Your task to perform on an android device: Go to location settings Image 0: 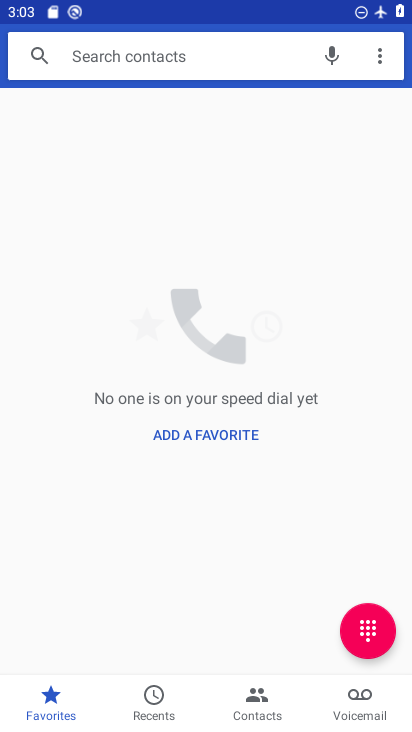
Step 0: drag from (250, 456) to (243, 185)
Your task to perform on an android device: Go to location settings Image 1: 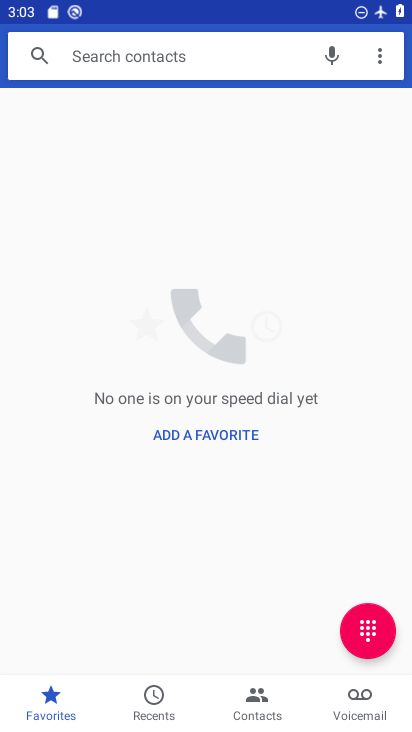
Step 1: press home button
Your task to perform on an android device: Go to location settings Image 2: 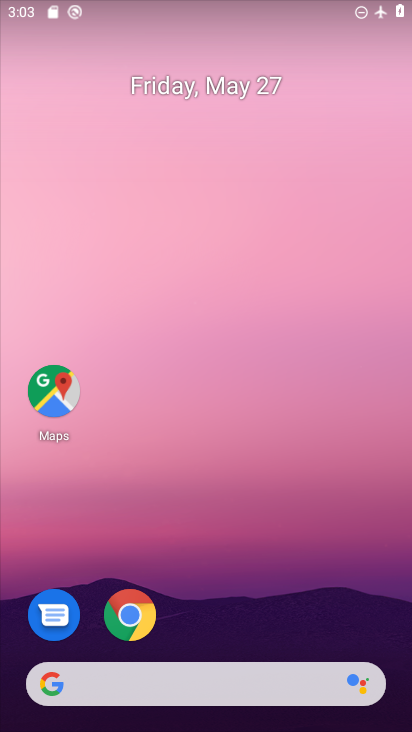
Step 2: drag from (291, 537) to (261, 307)
Your task to perform on an android device: Go to location settings Image 3: 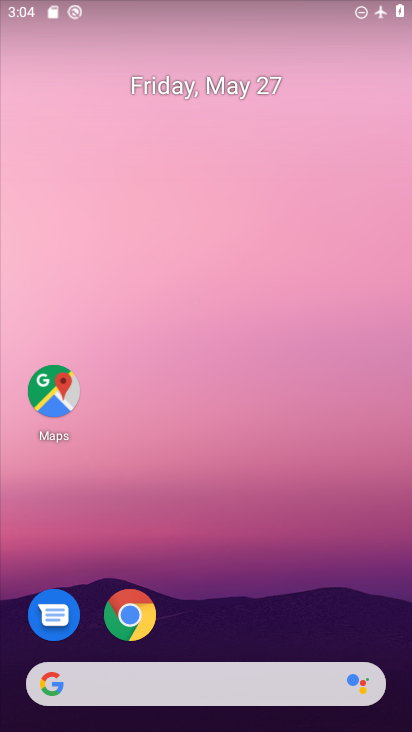
Step 3: drag from (271, 619) to (174, 59)
Your task to perform on an android device: Go to location settings Image 4: 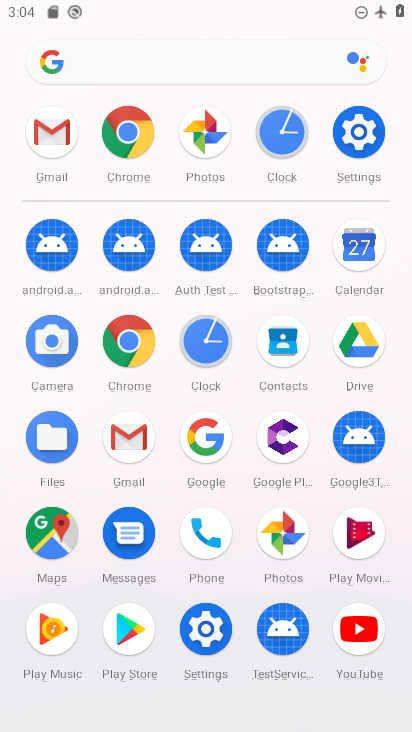
Step 4: click (348, 148)
Your task to perform on an android device: Go to location settings Image 5: 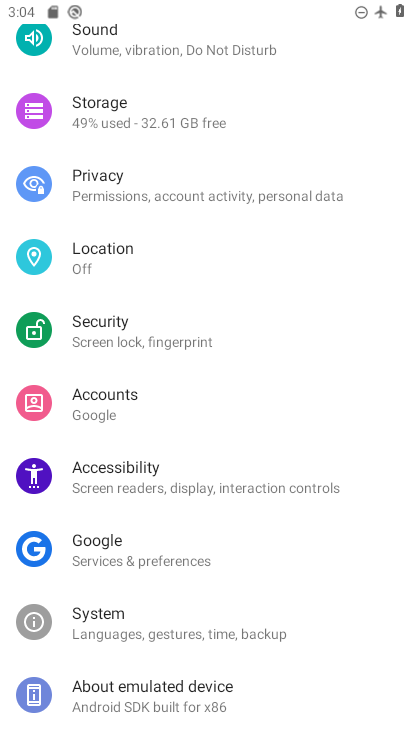
Step 5: click (160, 276)
Your task to perform on an android device: Go to location settings Image 6: 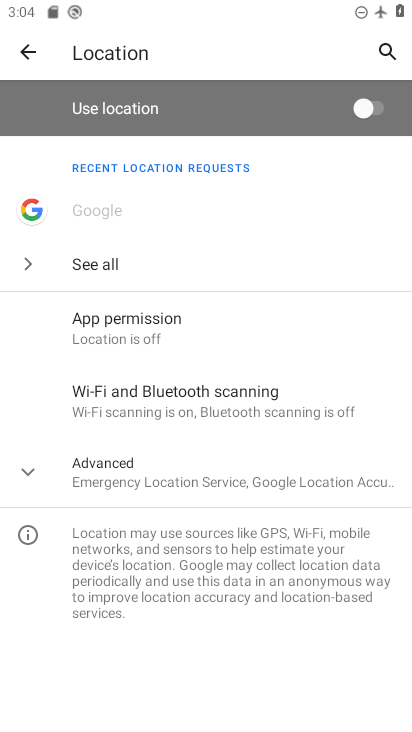
Step 6: task complete